Your task to perform on an android device: open chrome privacy settings Image 0: 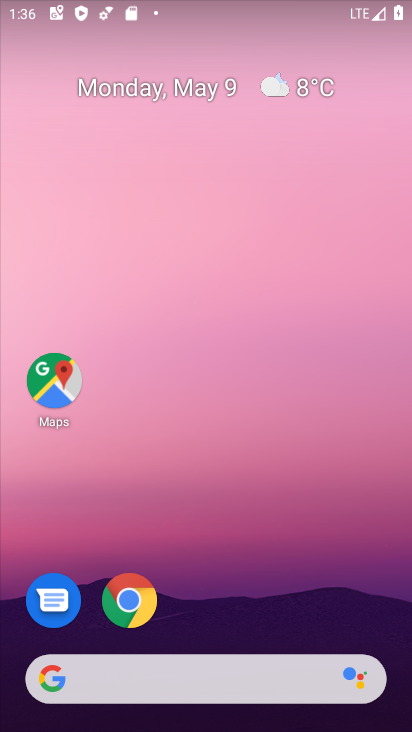
Step 0: drag from (208, 618) to (213, 88)
Your task to perform on an android device: open chrome privacy settings Image 1: 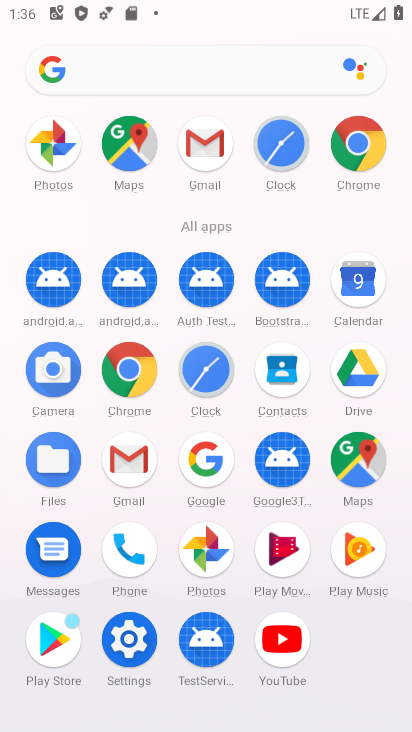
Step 1: click (129, 633)
Your task to perform on an android device: open chrome privacy settings Image 2: 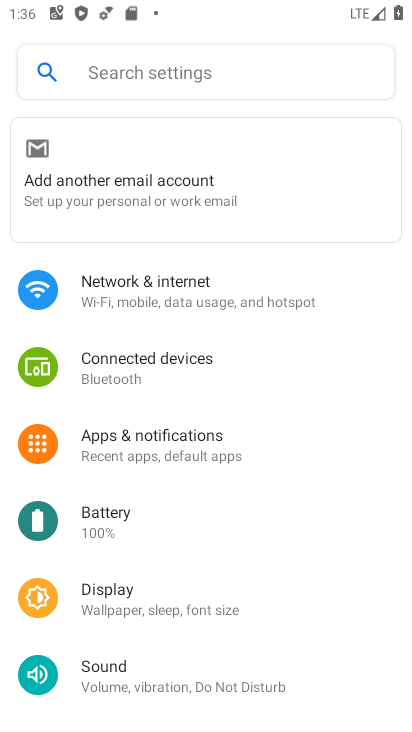
Step 2: drag from (172, 639) to (218, 200)
Your task to perform on an android device: open chrome privacy settings Image 3: 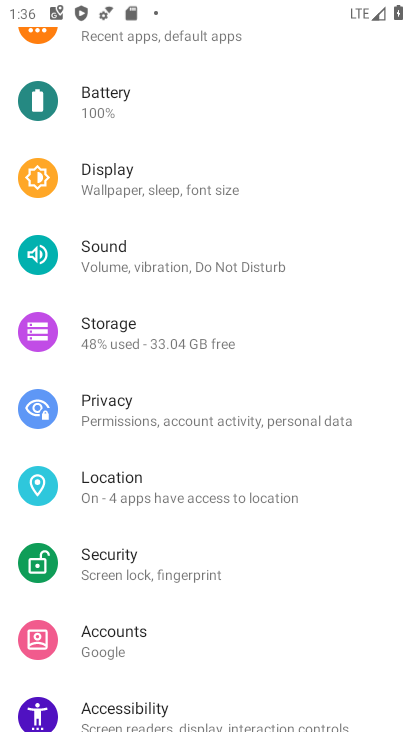
Step 3: click (136, 404)
Your task to perform on an android device: open chrome privacy settings Image 4: 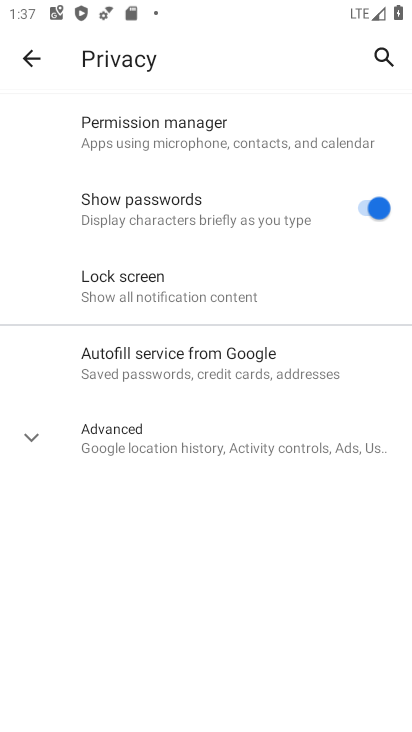
Step 4: click (33, 431)
Your task to perform on an android device: open chrome privacy settings Image 5: 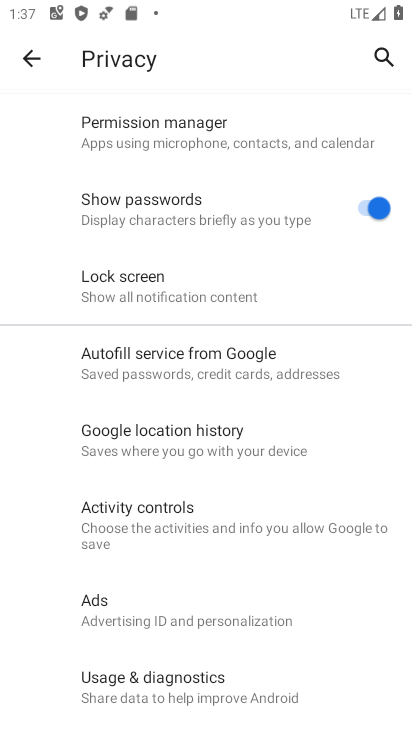
Step 5: task complete